Your task to perform on an android device: What is the news today? Image 0: 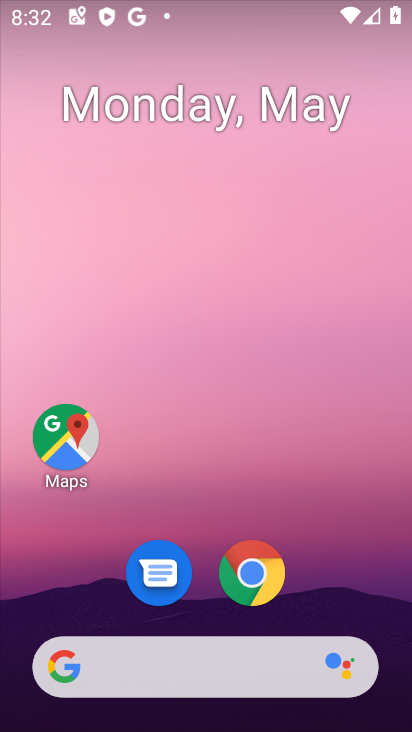
Step 0: drag from (220, 692) to (261, 284)
Your task to perform on an android device: What is the news today? Image 1: 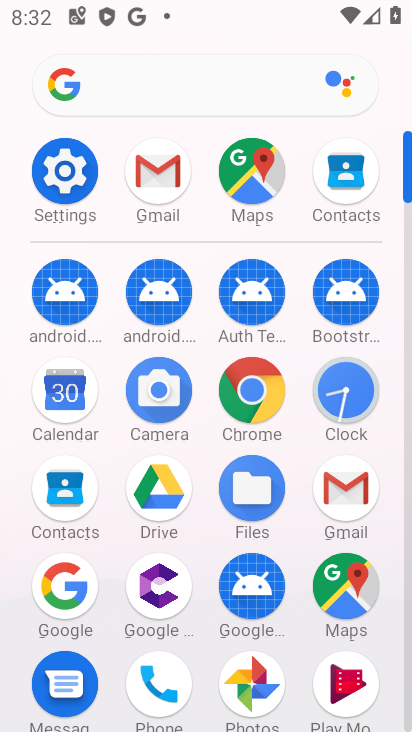
Step 1: click (79, 598)
Your task to perform on an android device: What is the news today? Image 2: 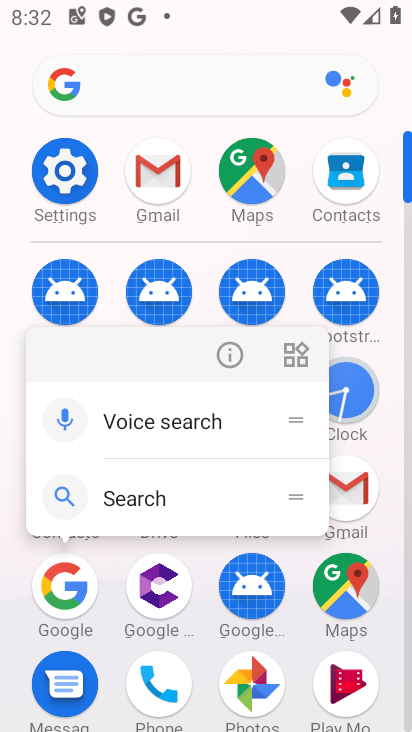
Step 2: click (78, 599)
Your task to perform on an android device: What is the news today? Image 3: 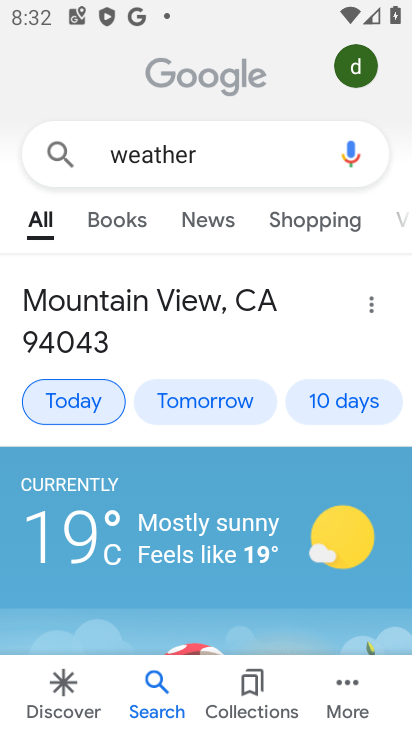
Step 3: click (264, 126)
Your task to perform on an android device: What is the news today? Image 4: 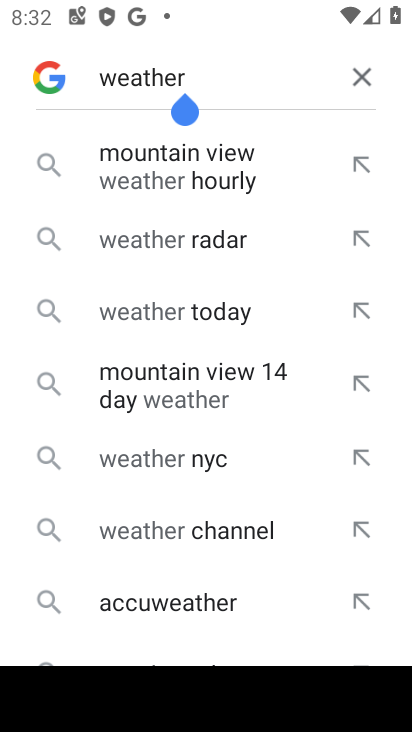
Step 4: click (366, 81)
Your task to perform on an android device: What is the news today? Image 5: 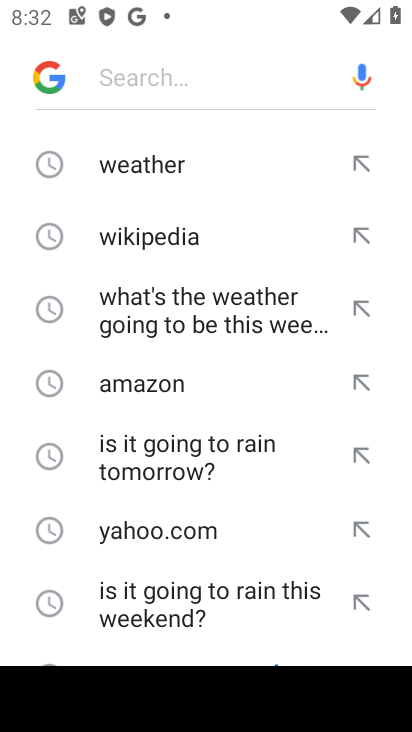
Step 5: type "news"
Your task to perform on an android device: What is the news today? Image 6: 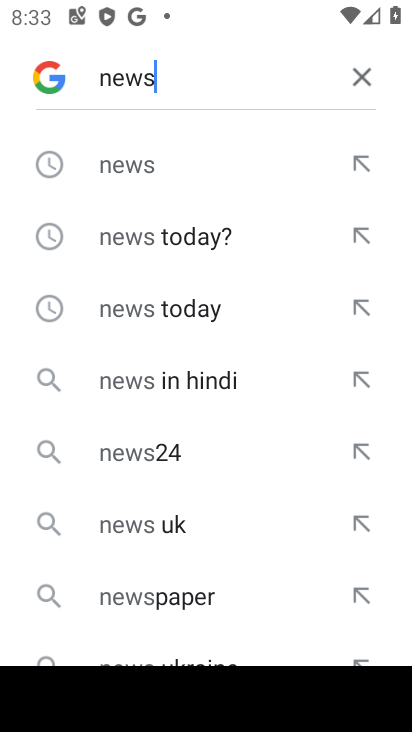
Step 6: click (154, 160)
Your task to perform on an android device: What is the news today? Image 7: 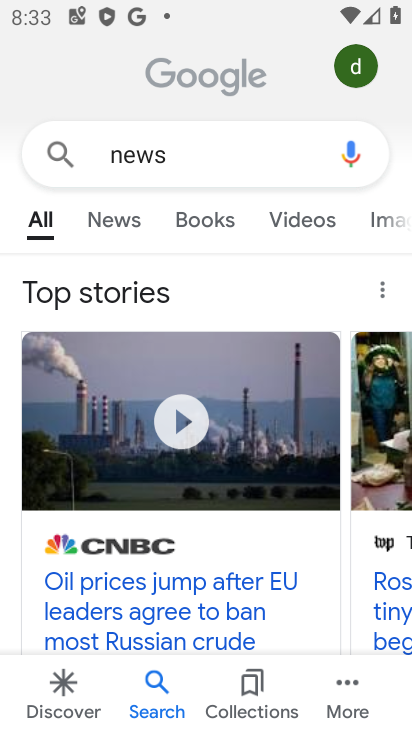
Step 7: task complete